Your task to perform on an android device: Go to privacy settings Image 0: 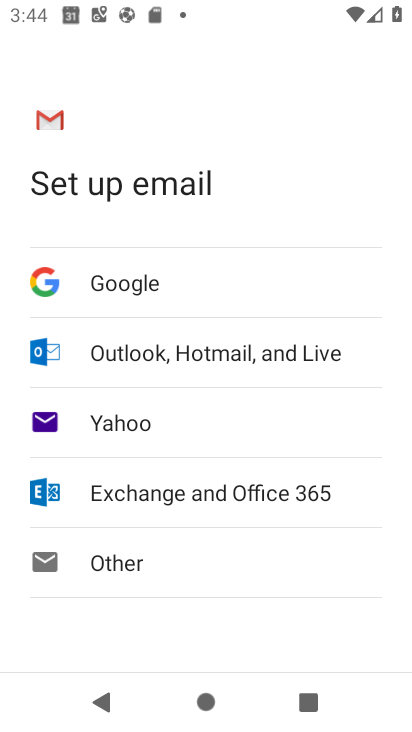
Step 0: press home button
Your task to perform on an android device: Go to privacy settings Image 1: 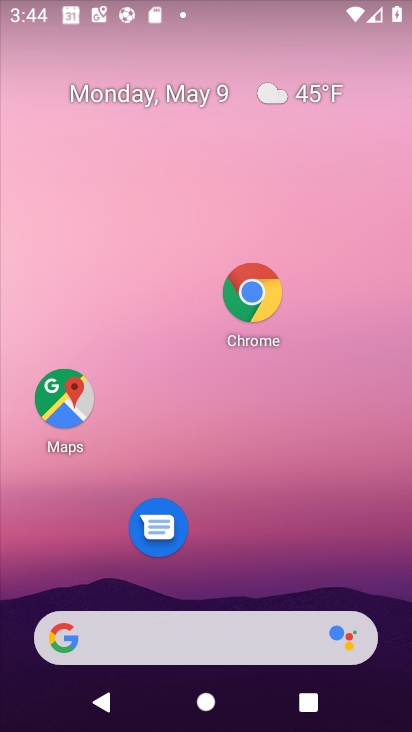
Step 1: drag from (229, 526) to (214, 432)
Your task to perform on an android device: Go to privacy settings Image 2: 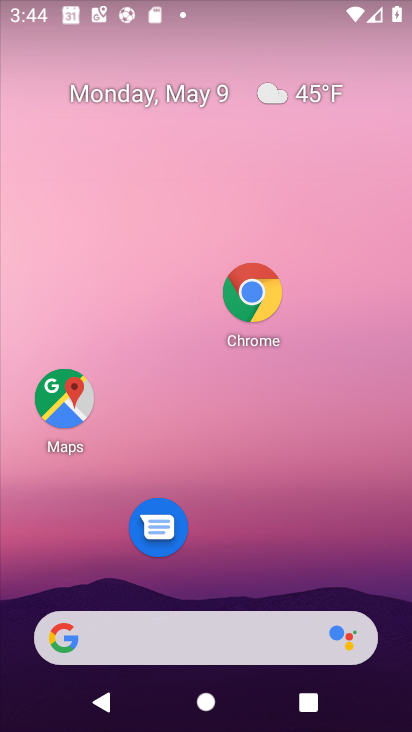
Step 2: drag from (257, 526) to (255, 24)
Your task to perform on an android device: Go to privacy settings Image 3: 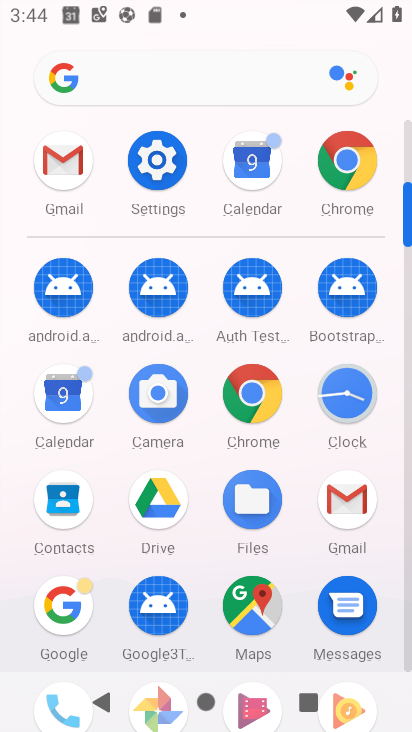
Step 3: click (165, 194)
Your task to perform on an android device: Go to privacy settings Image 4: 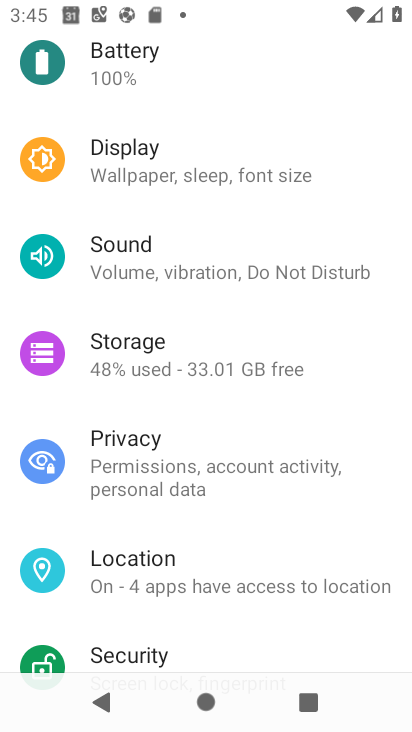
Step 4: click (244, 466)
Your task to perform on an android device: Go to privacy settings Image 5: 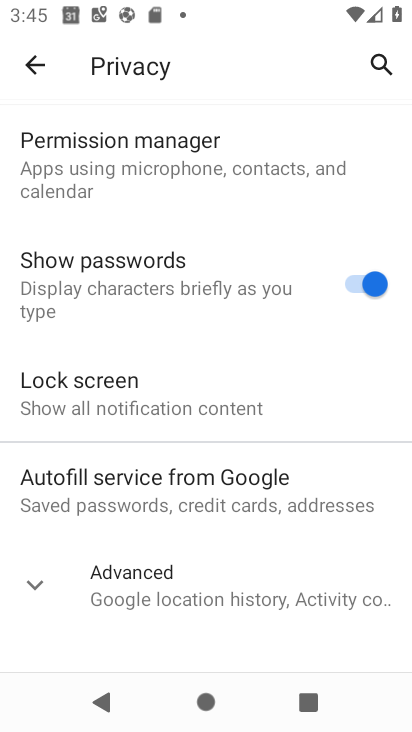
Step 5: task complete